Your task to perform on an android device: Do I have any events tomorrow? Image 0: 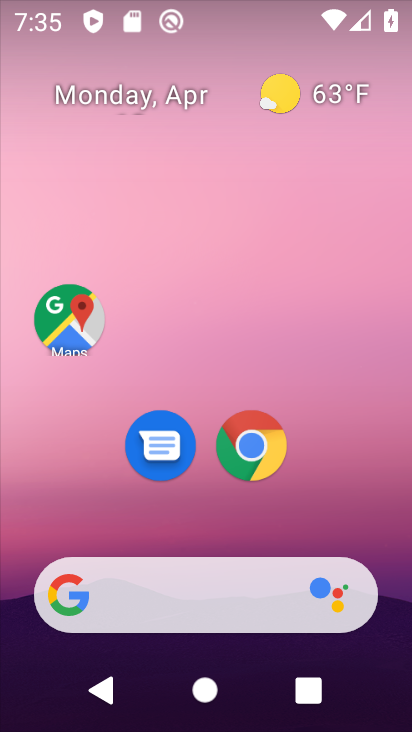
Step 0: drag from (382, 526) to (358, 60)
Your task to perform on an android device: Do I have any events tomorrow? Image 1: 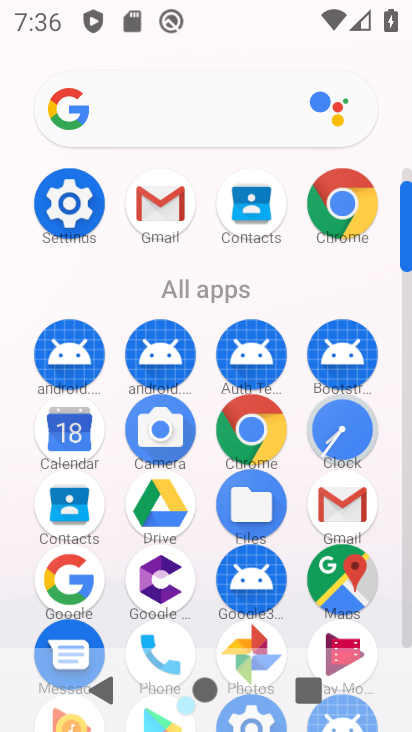
Step 1: click (75, 439)
Your task to perform on an android device: Do I have any events tomorrow? Image 2: 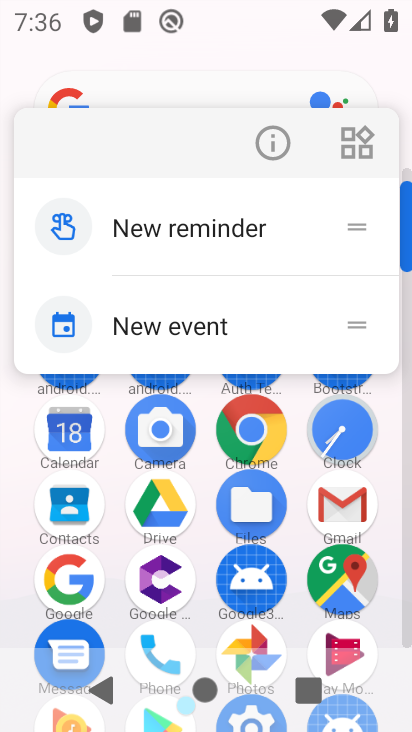
Step 2: click (63, 382)
Your task to perform on an android device: Do I have any events tomorrow? Image 3: 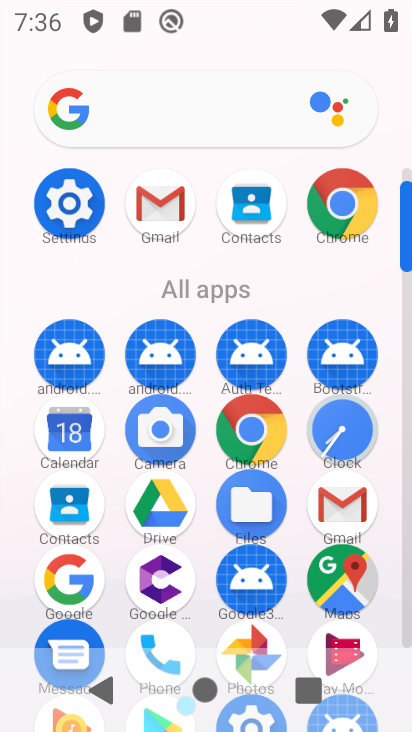
Step 3: click (66, 441)
Your task to perform on an android device: Do I have any events tomorrow? Image 4: 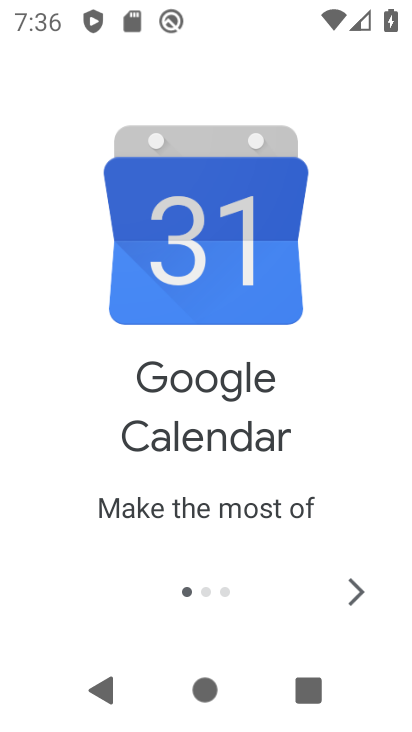
Step 4: click (359, 594)
Your task to perform on an android device: Do I have any events tomorrow? Image 5: 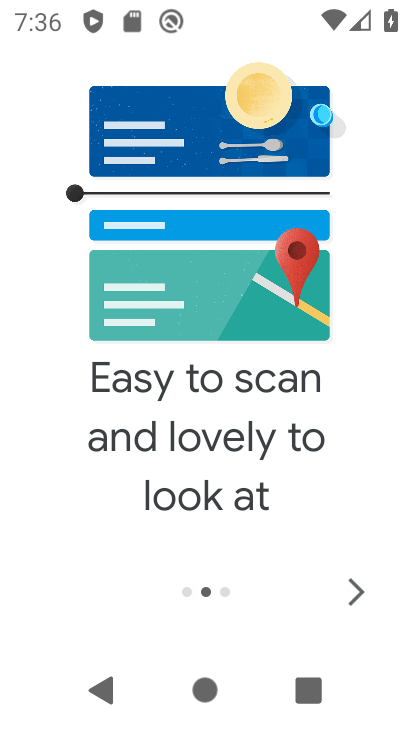
Step 5: click (356, 583)
Your task to perform on an android device: Do I have any events tomorrow? Image 6: 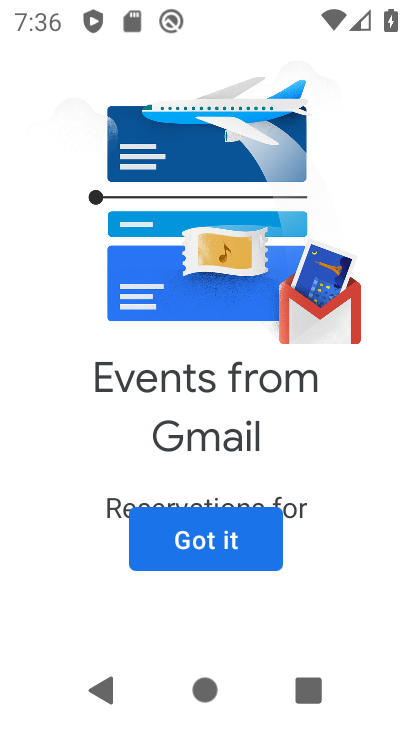
Step 6: click (220, 529)
Your task to perform on an android device: Do I have any events tomorrow? Image 7: 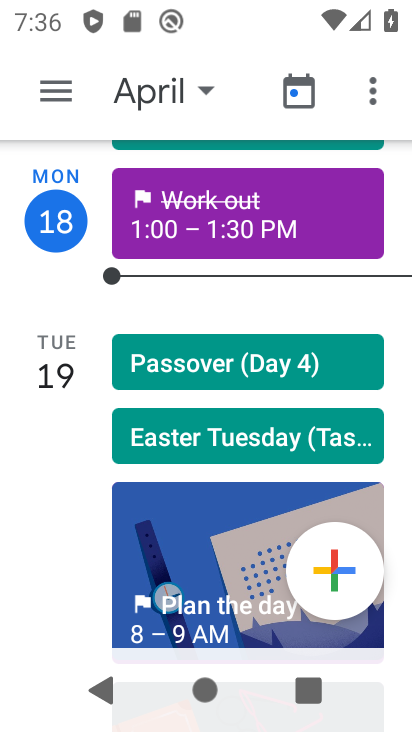
Step 7: click (196, 84)
Your task to perform on an android device: Do I have any events tomorrow? Image 8: 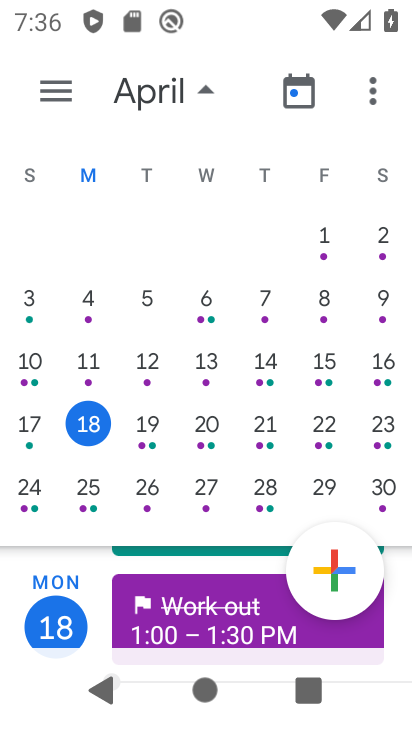
Step 8: click (82, 424)
Your task to perform on an android device: Do I have any events tomorrow? Image 9: 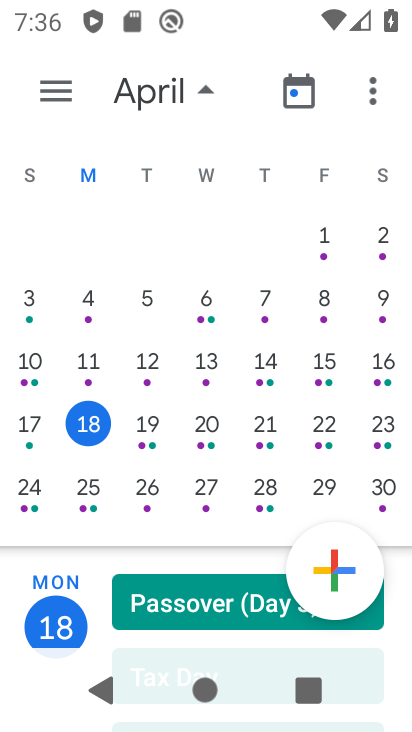
Step 9: task complete